Your task to perform on an android device: Open Google Chrome Image 0: 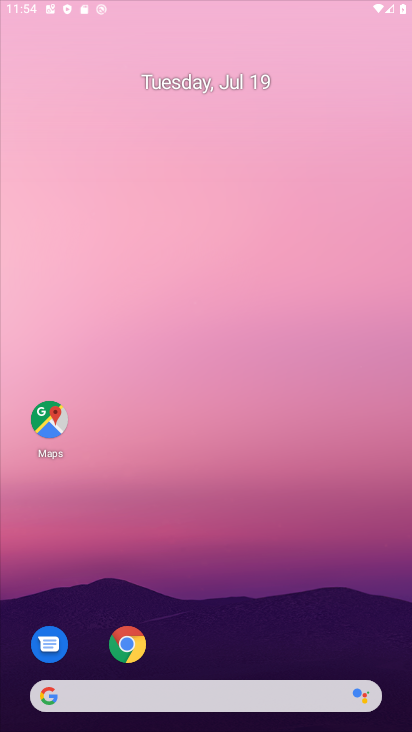
Step 0: press home button
Your task to perform on an android device: Open Google Chrome Image 1: 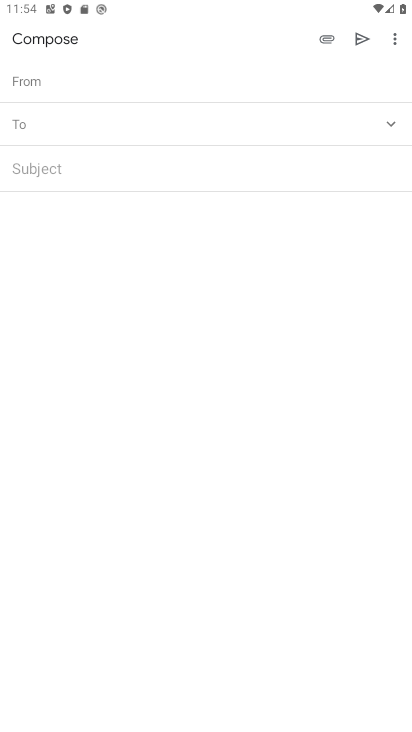
Step 1: click (271, 153)
Your task to perform on an android device: Open Google Chrome Image 2: 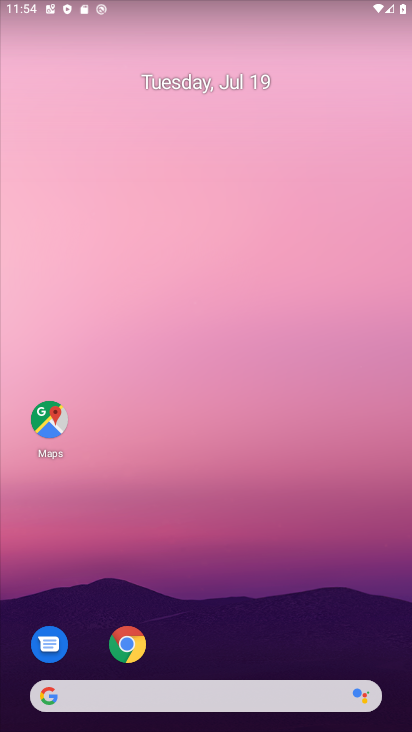
Step 2: click (122, 638)
Your task to perform on an android device: Open Google Chrome Image 3: 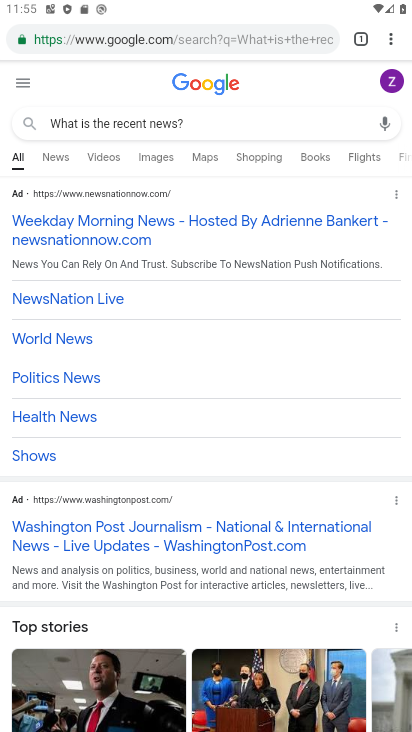
Step 3: task complete